Your task to perform on an android device: uninstall "Grab" Image 0: 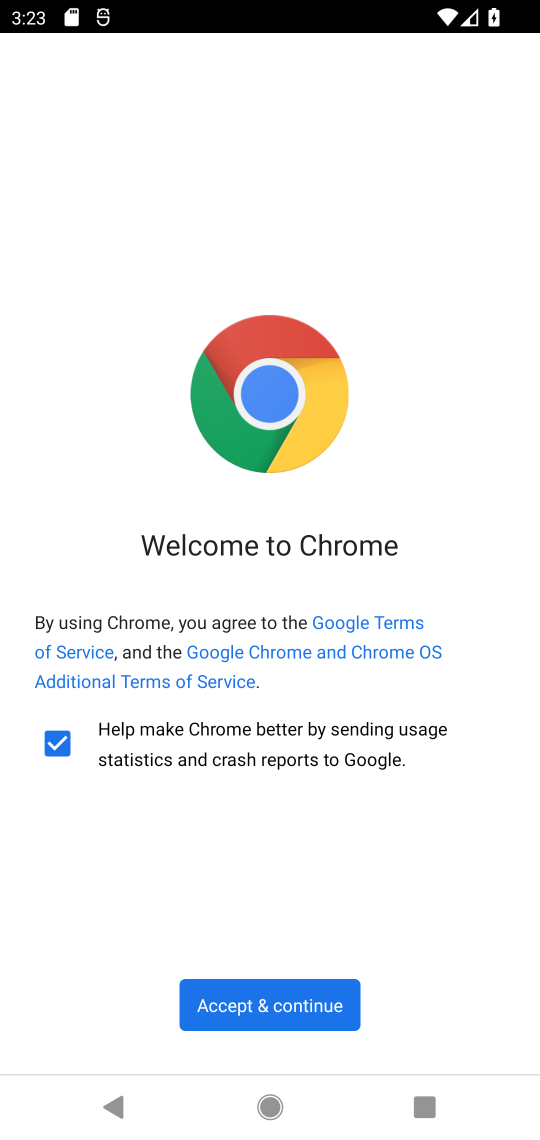
Step 0: press home button
Your task to perform on an android device: uninstall "Grab" Image 1: 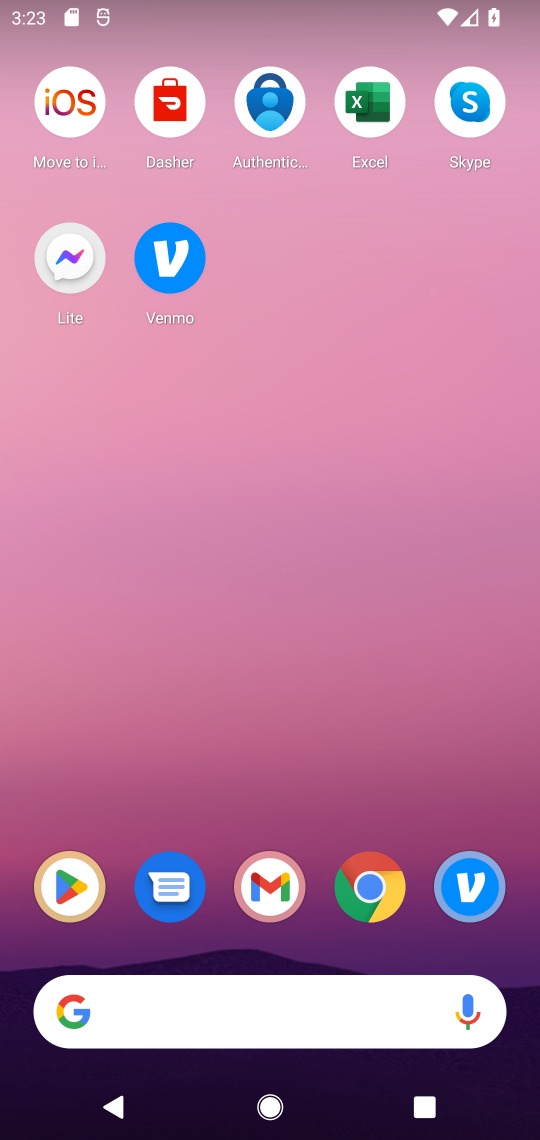
Step 1: click (56, 910)
Your task to perform on an android device: uninstall "Grab" Image 2: 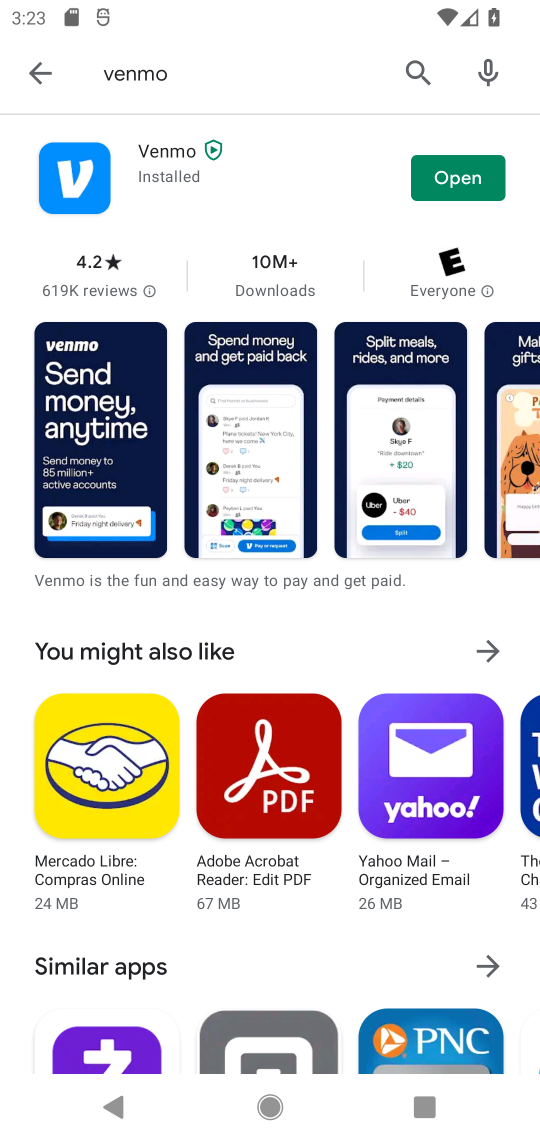
Step 2: click (32, 91)
Your task to perform on an android device: uninstall "Grab" Image 3: 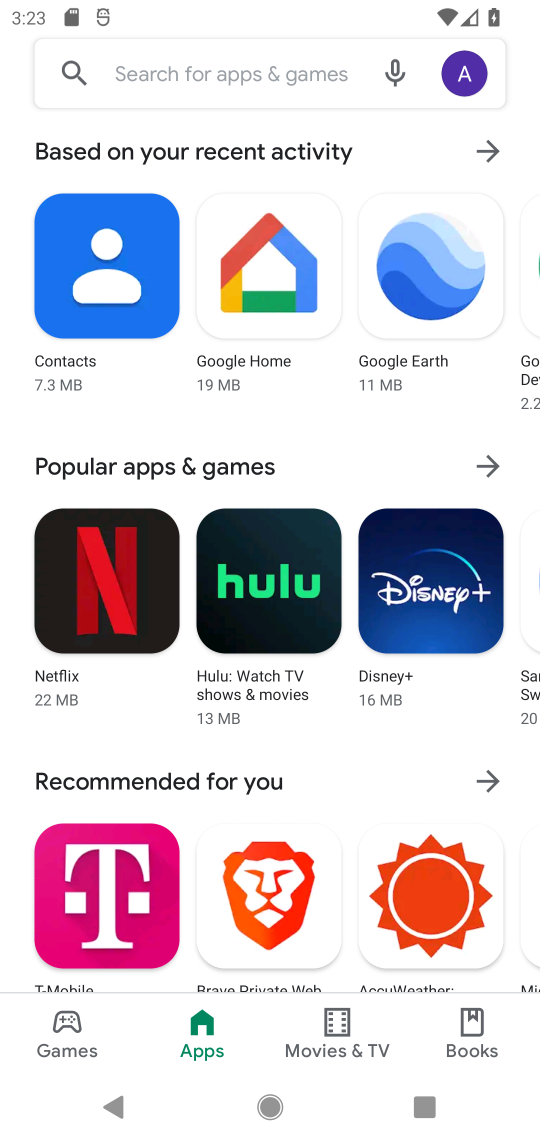
Step 3: click (227, 96)
Your task to perform on an android device: uninstall "Grab" Image 4: 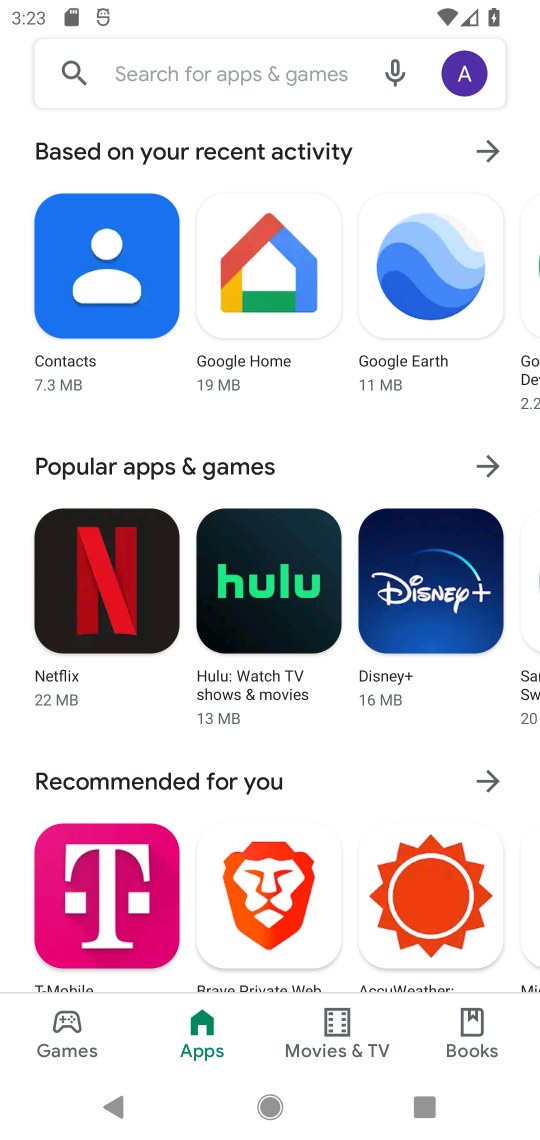
Step 4: click (230, 76)
Your task to perform on an android device: uninstall "Grab" Image 5: 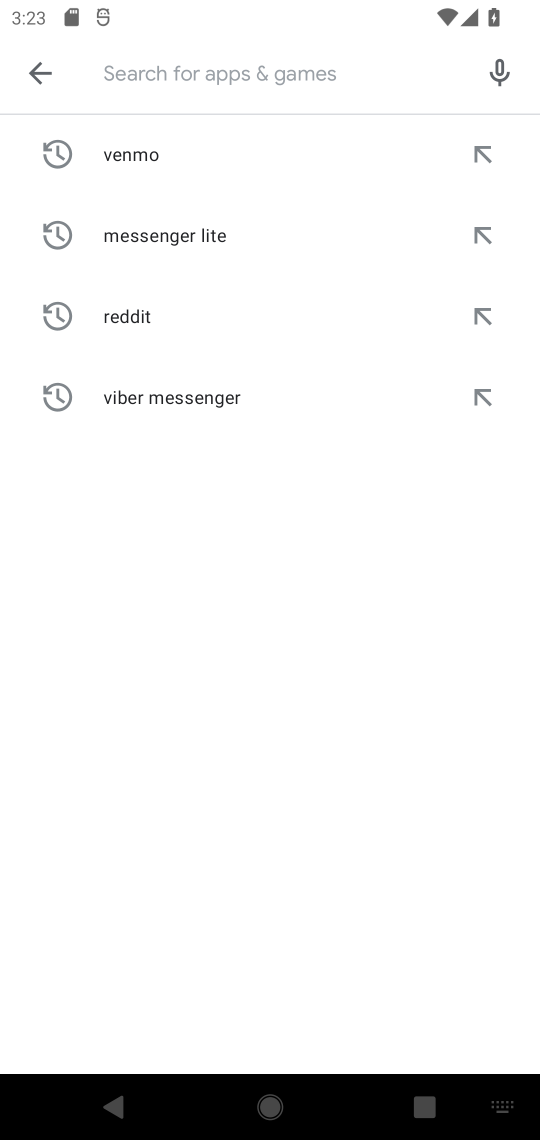
Step 5: type "Grab"
Your task to perform on an android device: uninstall "Grab" Image 6: 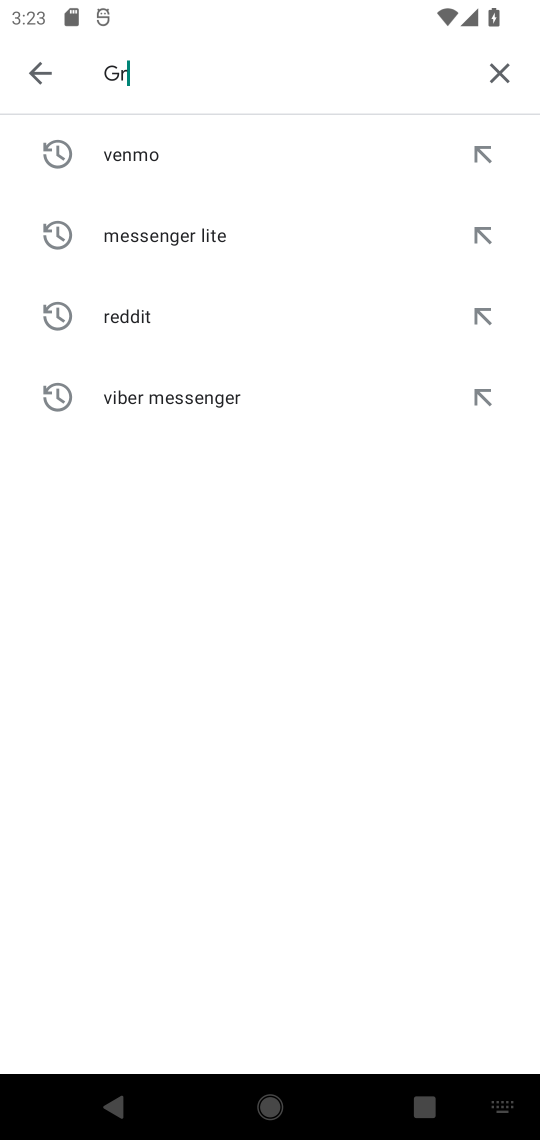
Step 6: type ""
Your task to perform on an android device: uninstall "Grab" Image 7: 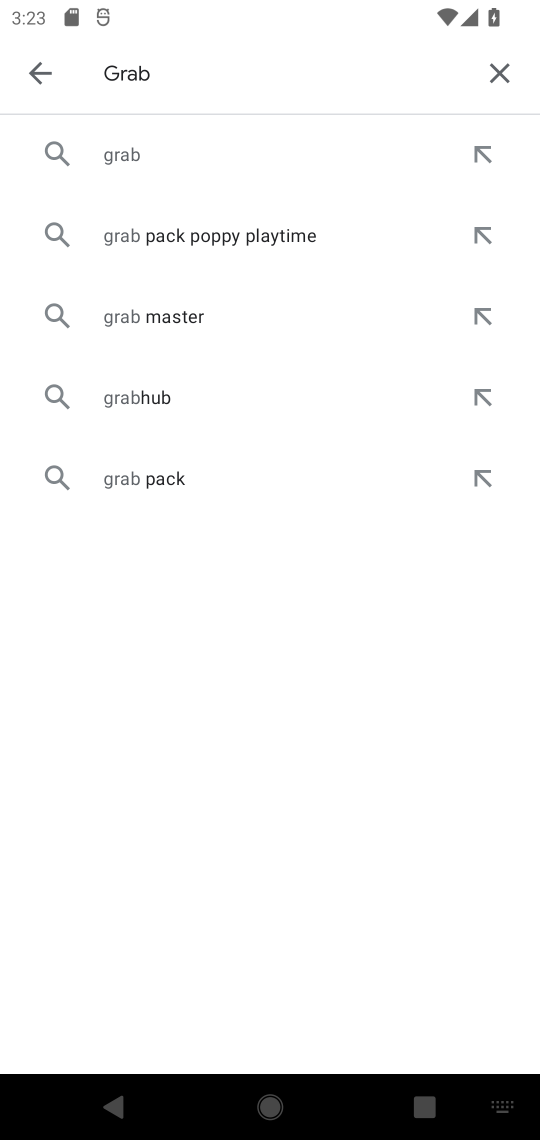
Step 7: click (104, 159)
Your task to perform on an android device: uninstall "Grab" Image 8: 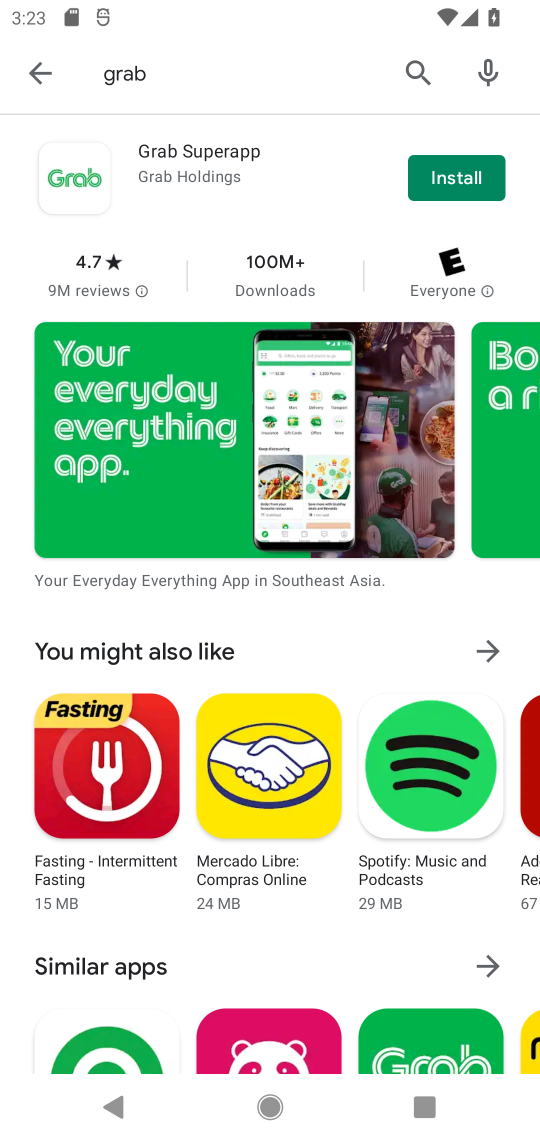
Step 8: task complete